Your task to perform on an android device: Turn on the flashlight Image 0: 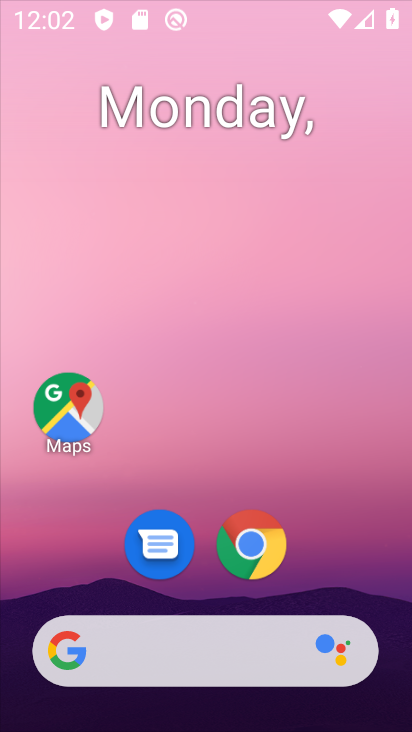
Step 0: drag from (340, 626) to (309, 12)
Your task to perform on an android device: Turn on the flashlight Image 1: 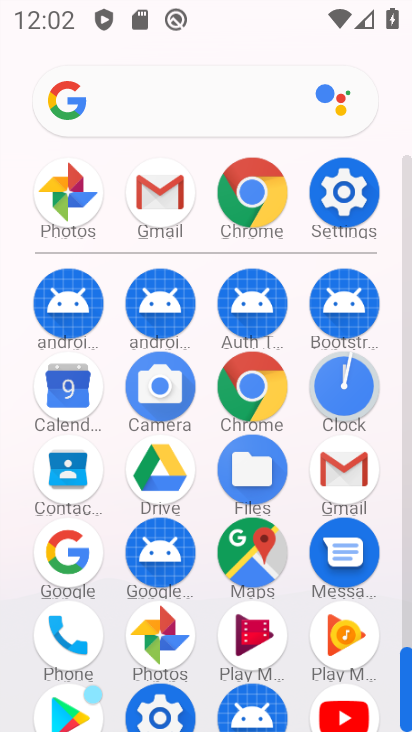
Step 1: click (267, 401)
Your task to perform on an android device: Turn on the flashlight Image 2: 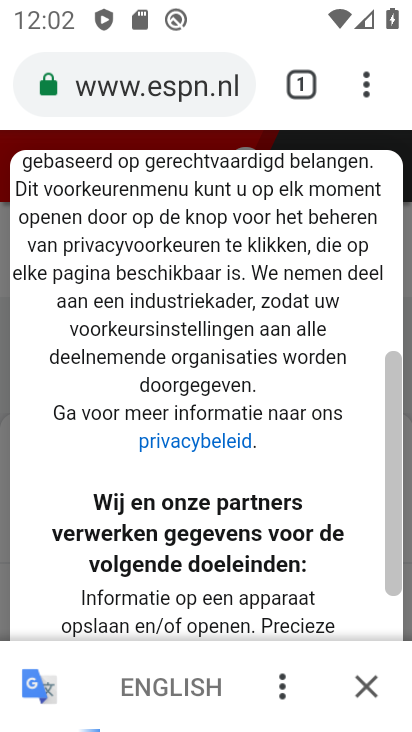
Step 2: task complete